Your task to perform on an android device: Go to Google Image 0: 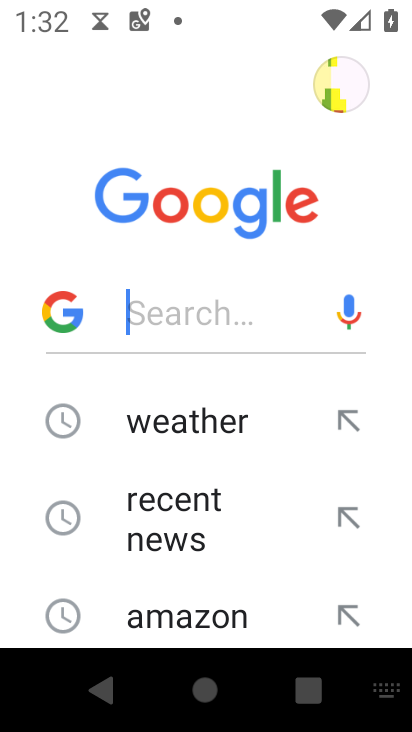
Step 0: task complete